Your task to perform on an android device: turn off translation in the chrome app Image 0: 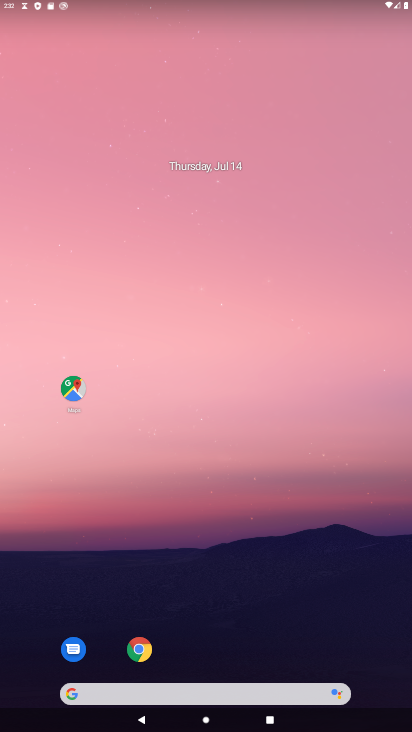
Step 0: click (165, 656)
Your task to perform on an android device: turn off translation in the chrome app Image 1: 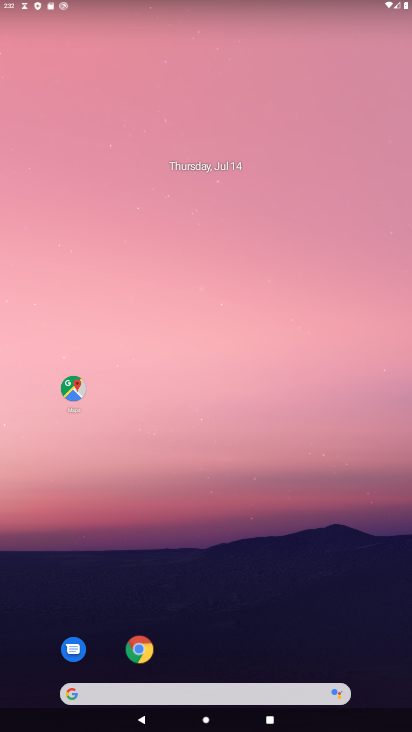
Step 1: click (147, 656)
Your task to perform on an android device: turn off translation in the chrome app Image 2: 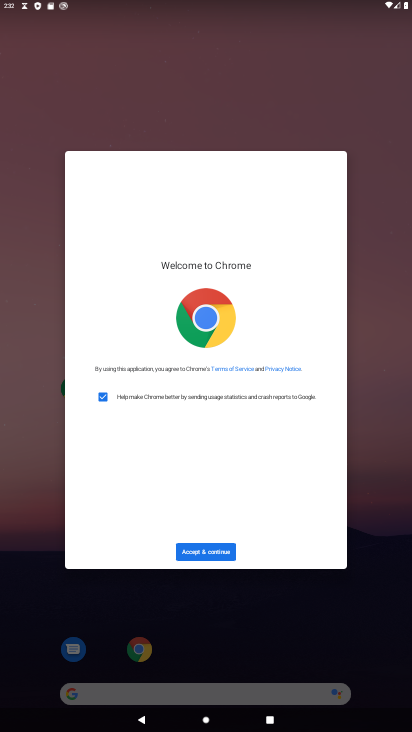
Step 2: click (209, 559)
Your task to perform on an android device: turn off translation in the chrome app Image 3: 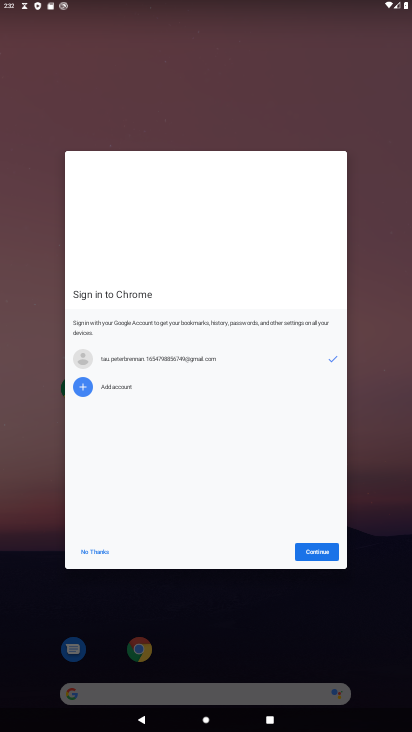
Step 3: click (314, 547)
Your task to perform on an android device: turn off translation in the chrome app Image 4: 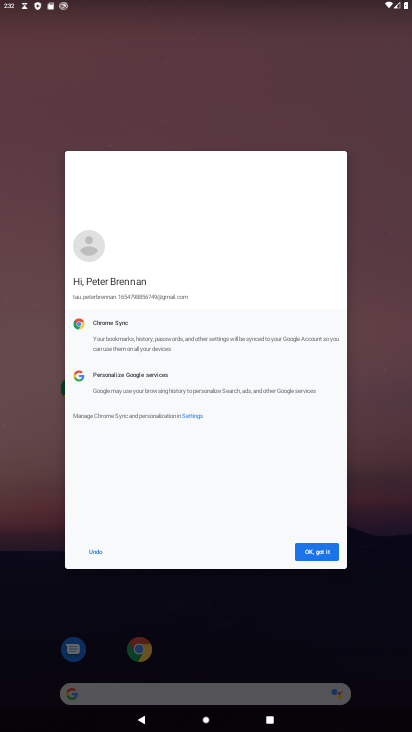
Step 4: click (315, 560)
Your task to perform on an android device: turn off translation in the chrome app Image 5: 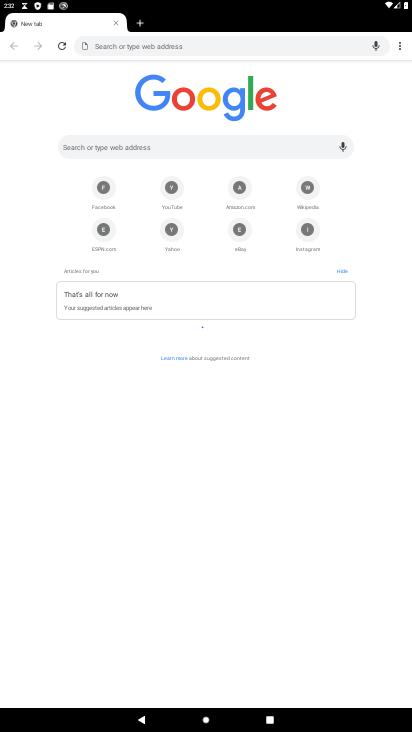
Step 5: click (397, 45)
Your task to perform on an android device: turn off translation in the chrome app Image 6: 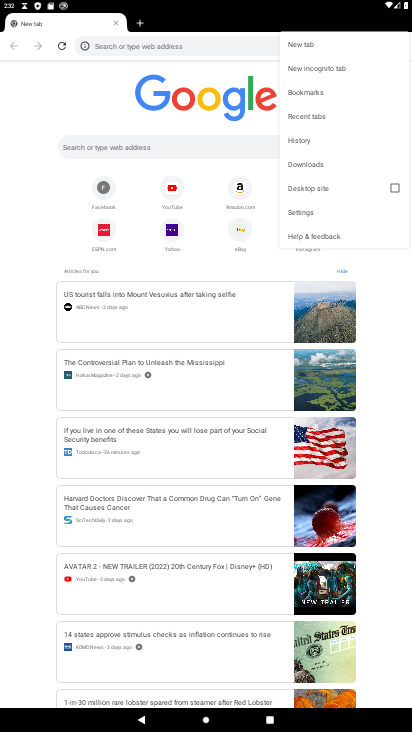
Step 6: click (290, 213)
Your task to perform on an android device: turn off translation in the chrome app Image 7: 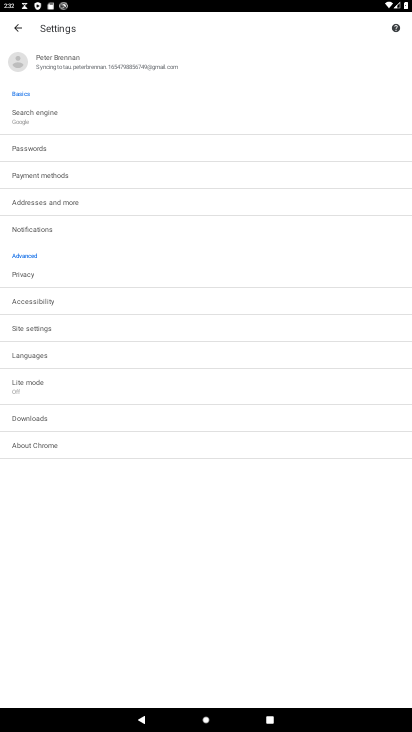
Step 7: click (24, 359)
Your task to perform on an android device: turn off translation in the chrome app Image 8: 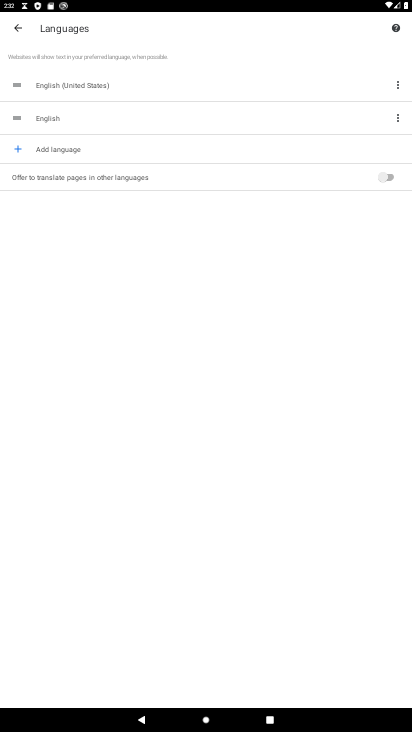
Step 8: click (110, 181)
Your task to perform on an android device: turn off translation in the chrome app Image 9: 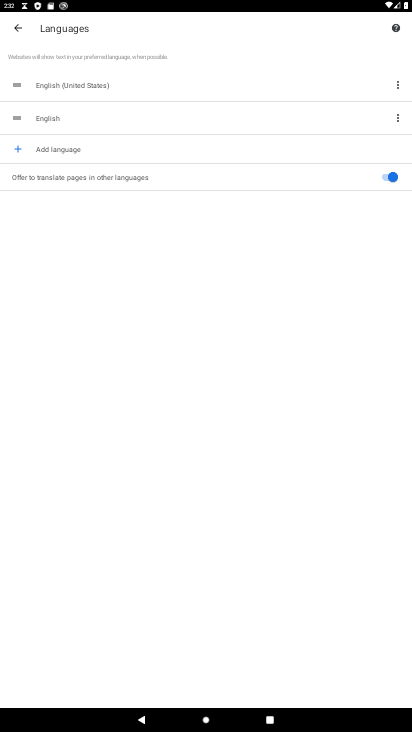
Step 9: click (385, 180)
Your task to perform on an android device: turn off translation in the chrome app Image 10: 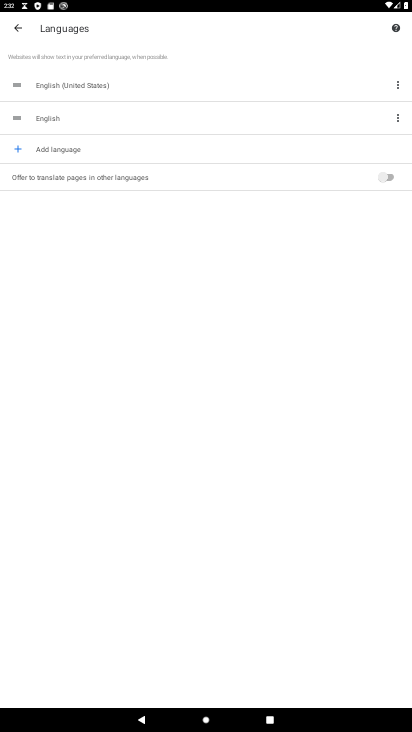
Step 10: task complete